Your task to perform on an android device: Is it going to rain this weekend? Image 0: 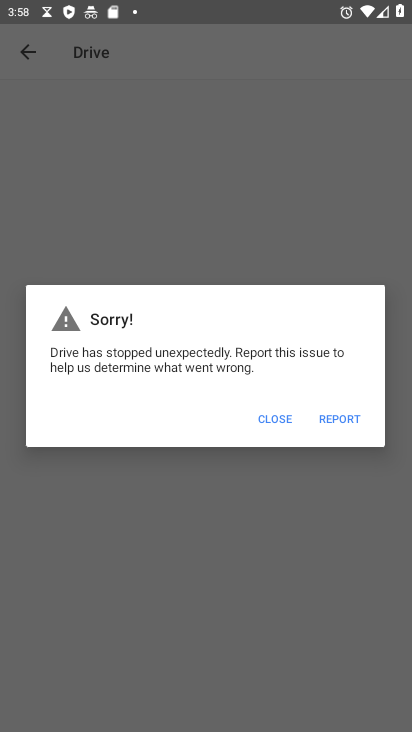
Step 0: click (271, 412)
Your task to perform on an android device: Is it going to rain this weekend? Image 1: 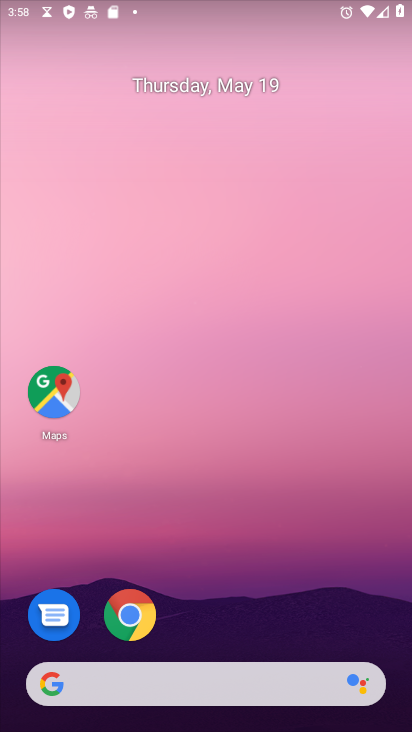
Step 1: drag from (259, 511) to (167, 192)
Your task to perform on an android device: Is it going to rain this weekend? Image 2: 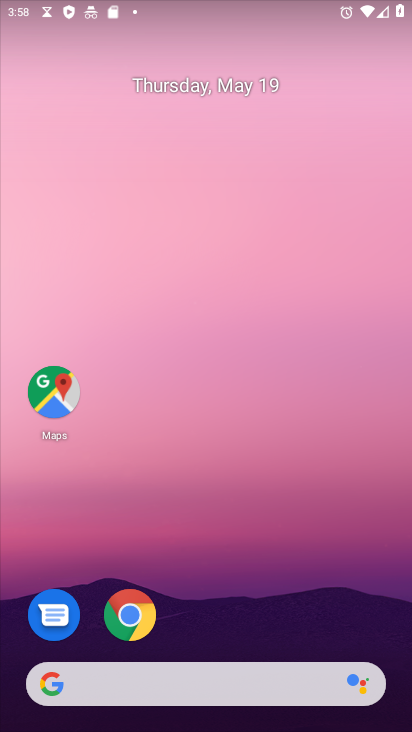
Step 2: drag from (224, 619) to (196, 54)
Your task to perform on an android device: Is it going to rain this weekend? Image 3: 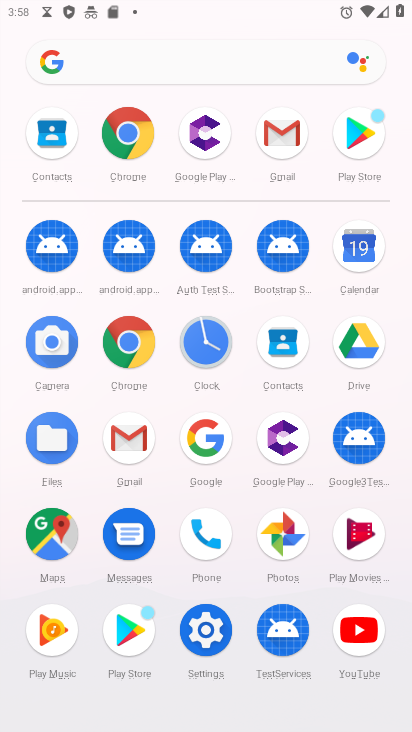
Step 3: press back button
Your task to perform on an android device: Is it going to rain this weekend? Image 4: 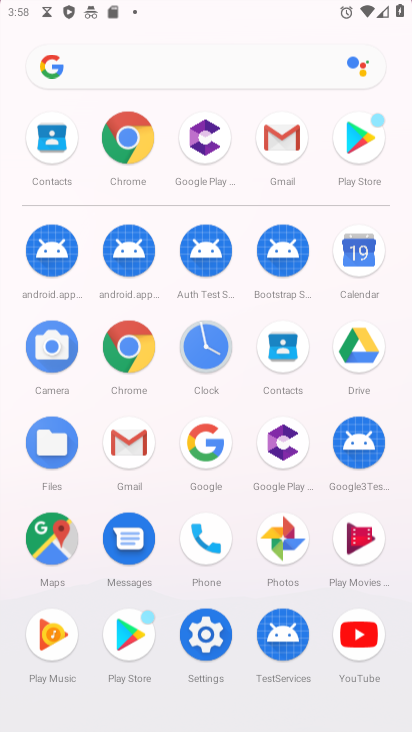
Step 4: press back button
Your task to perform on an android device: Is it going to rain this weekend? Image 5: 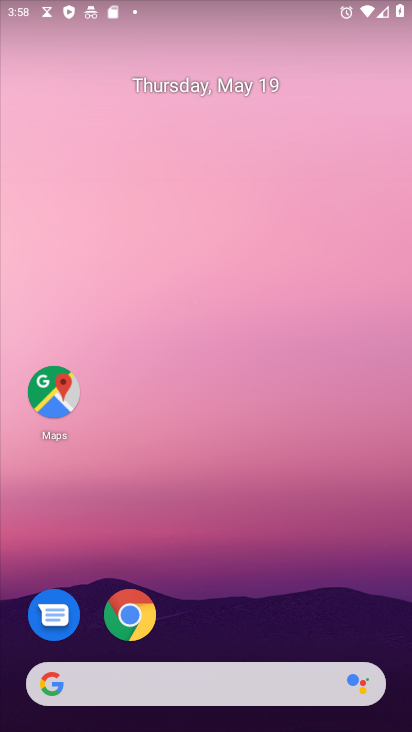
Step 5: press back button
Your task to perform on an android device: Is it going to rain this weekend? Image 6: 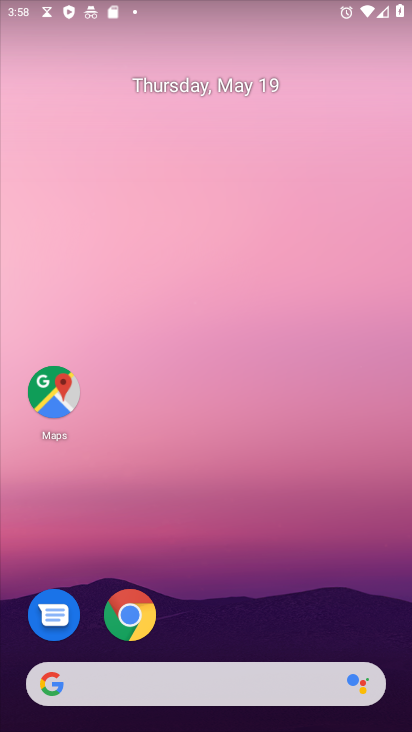
Step 6: press back button
Your task to perform on an android device: Is it going to rain this weekend? Image 7: 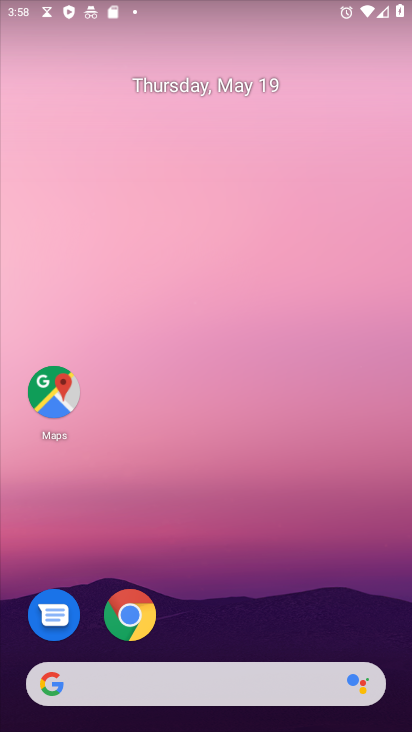
Step 7: drag from (10, 173) to (399, 511)
Your task to perform on an android device: Is it going to rain this weekend? Image 8: 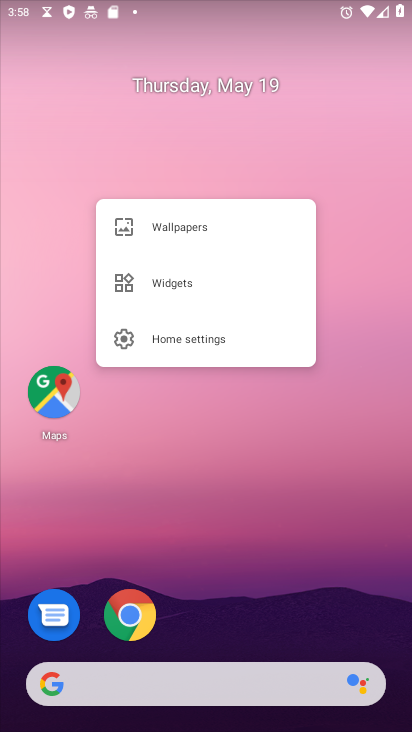
Step 8: click (79, 149)
Your task to perform on an android device: Is it going to rain this weekend? Image 9: 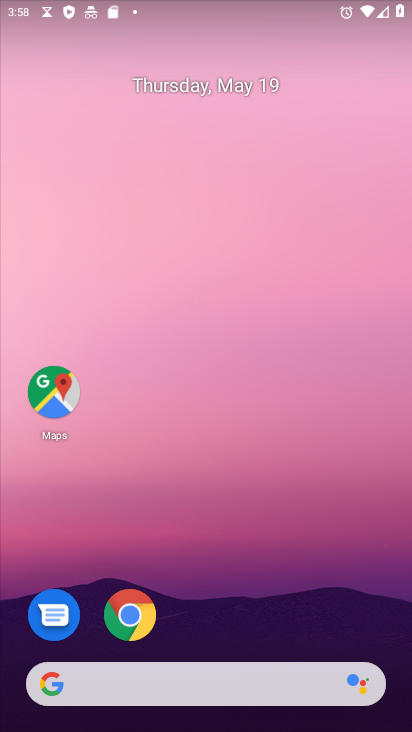
Step 9: click (81, 149)
Your task to perform on an android device: Is it going to rain this weekend? Image 10: 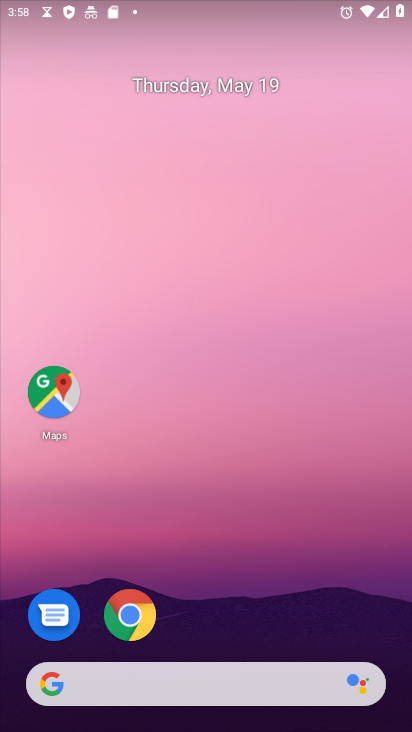
Step 10: click (103, 131)
Your task to perform on an android device: Is it going to rain this weekend? Image 11: 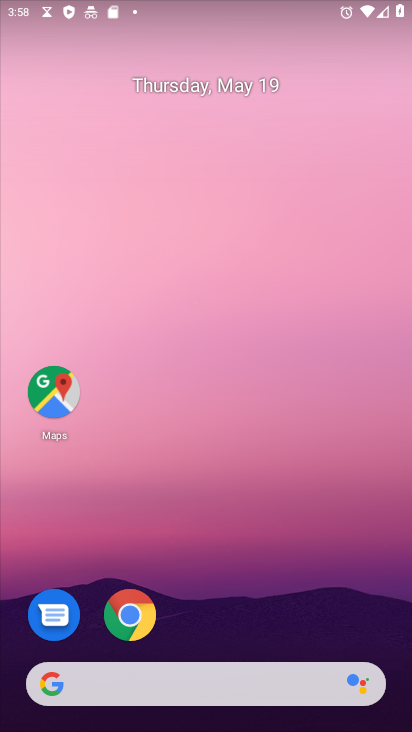
Step 11: drag from (35, 167) to (337, 498)
Your task to perform on an android device: Is it going to rain this weekend? Image 12: 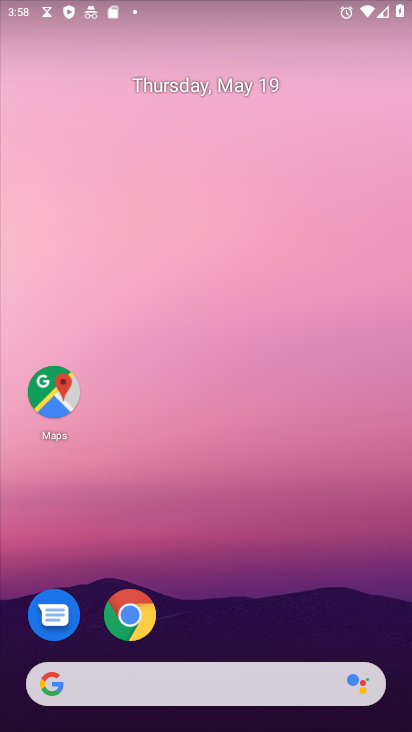
Step 12: drag from (42, 249) to (386, 432)
Your task to perform on an android device: Is it going to rain this weekend? Image 13: 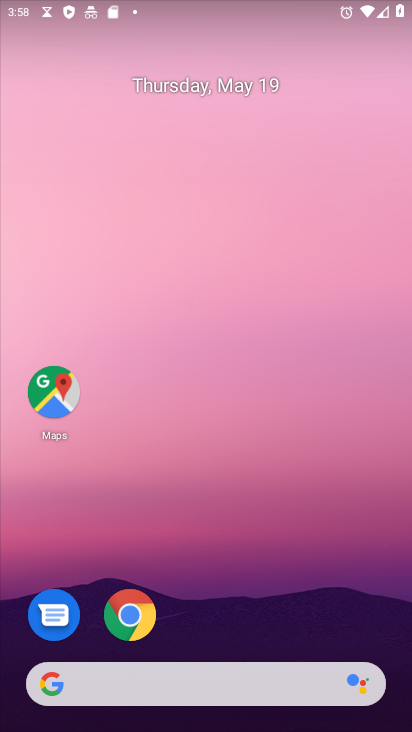
Step 13: drag from (7, 246) to (369, 550)
Your task to perform on an android device: Is it going to rain this weekend? Image 14: 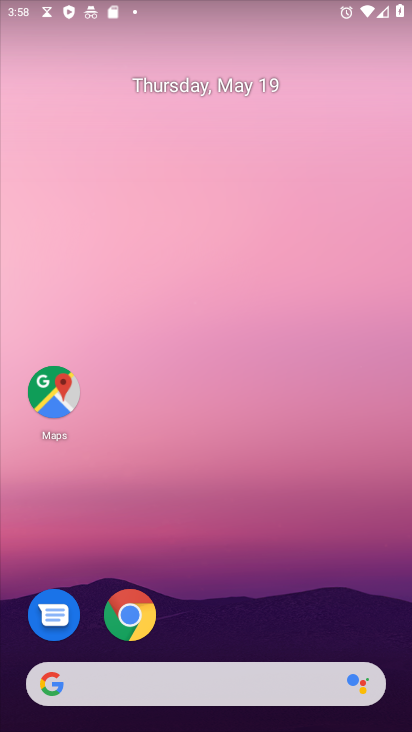
Step 14: drag from (103, 241) to (392, 290)
Your task to perform on an android device: Is it going to rain this weekend? Image 15: 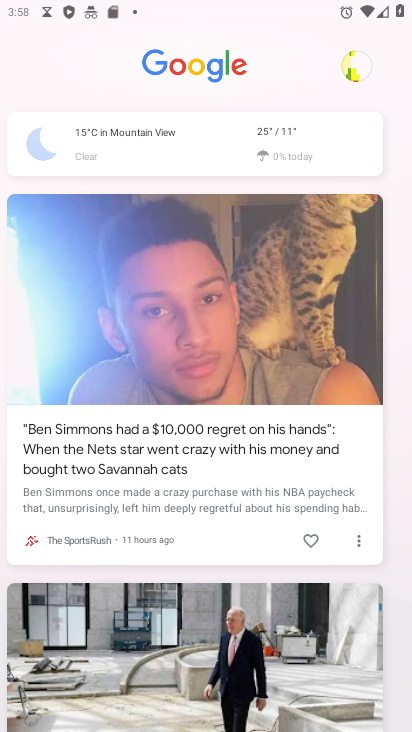
Step 15: drag from (9, 270) to (411, 342)
Your task to perform on an android device: Is it going to rain this weekend? Image 16: 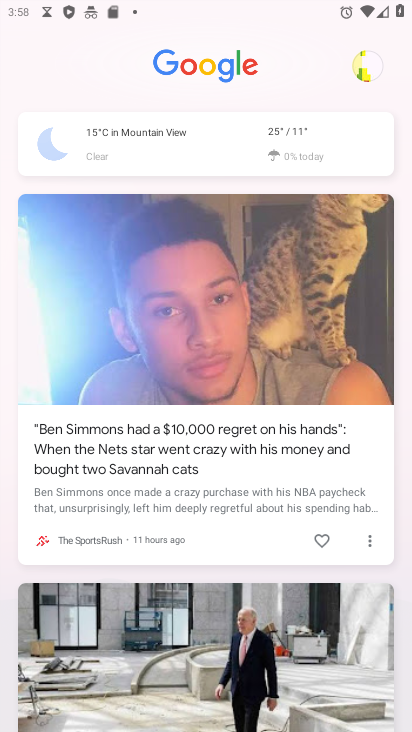
Step 16: click (164, 135)
Your task to perform on an android device: Is it going to rain this weekend? Image 17: 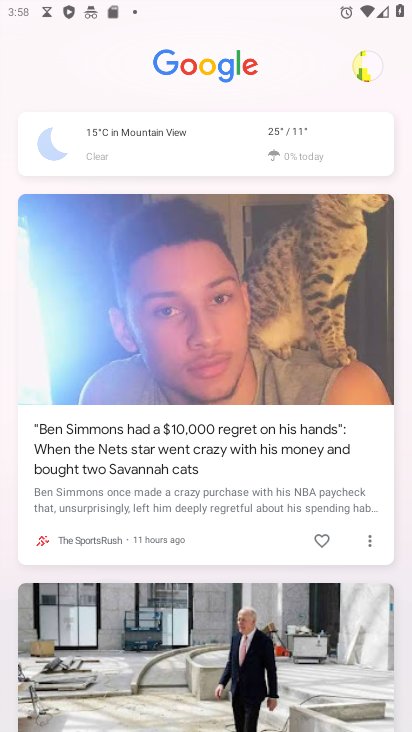
Step 17: click (170, 136)
Your task to perform on an android device: Is it going to rain this weekend? Image 18: 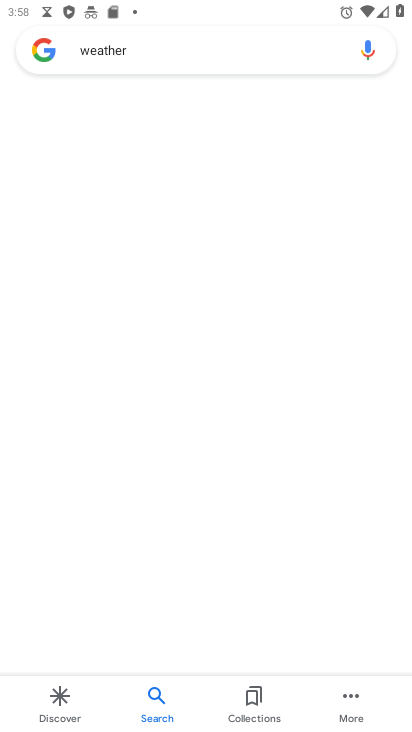
Step 18: click (173, 140)
Your task to perform on an android device: Is it going to rain this weekend? Image 19: 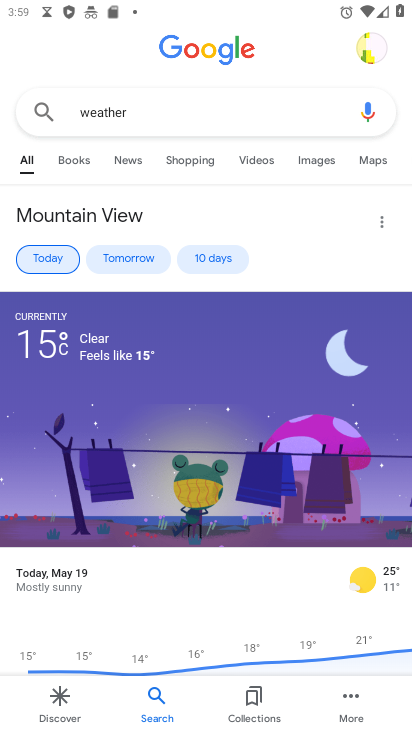
Step 19: click (144, 107)
Your task to perform on an android device: Is it going to rain this weekend? Image 20: 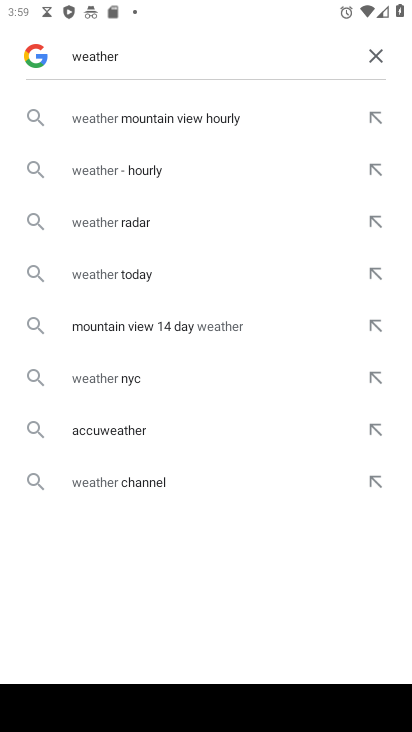
Step 20: type "weekend"
Your task to perform on an android device: Is it going to rain this weekend? Image 21: 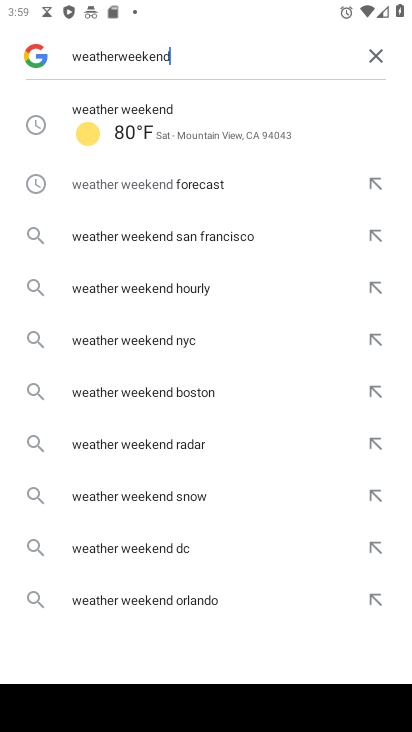
Step 21: click (155, 120)
Your task to perform on an android device: Is it going to rain this weekend? Image 22: 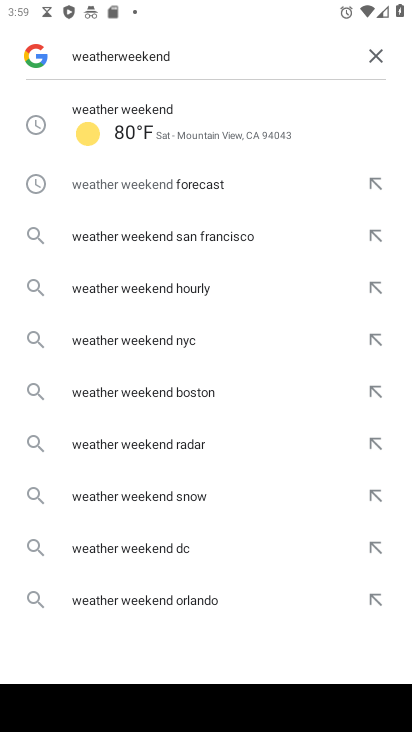
Step 22: click (157, 121)
Your task to perform on an android device: Is it going to rain this weekend? Image 23: 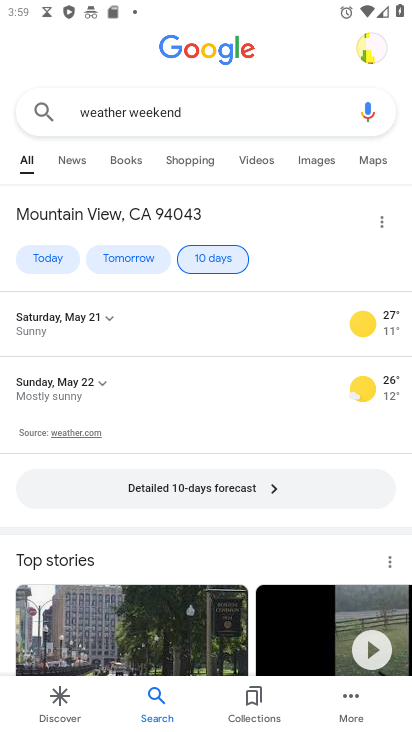
Step 23: task complete